Your task to perform on an android device: turn off javascript in the chrome app Image 0: 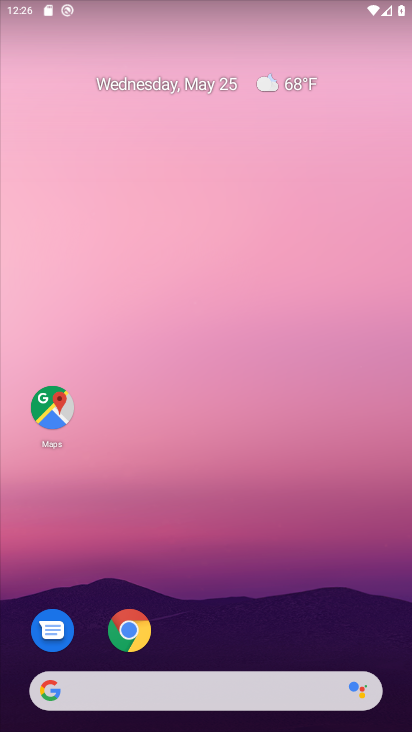
Step 0: click (129, 633)
Your task to perform on an android device: turn off javascript in the chrome app Image 1: 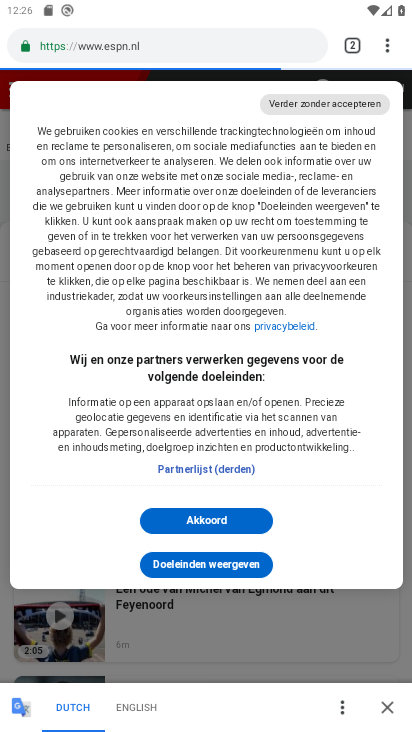
Step 1: drag from (386, 45) to (235, 496)
Your task to perform on an android device: turn off javascript in the chrome app Image 2: 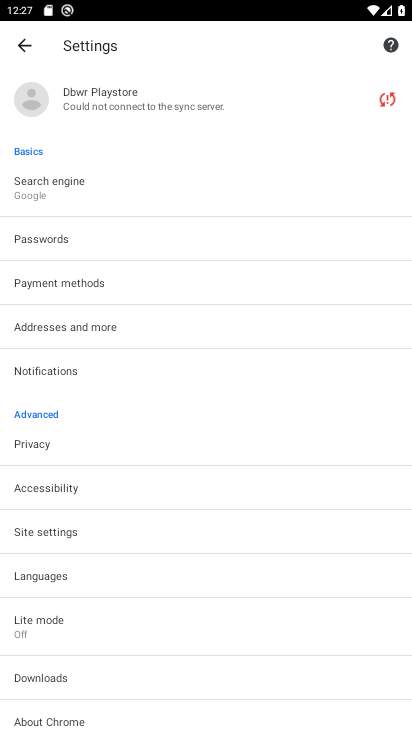
Step 2: click (100, 537)
Your task to perform on an android device: turn off javascript in the chrome app Image 3: 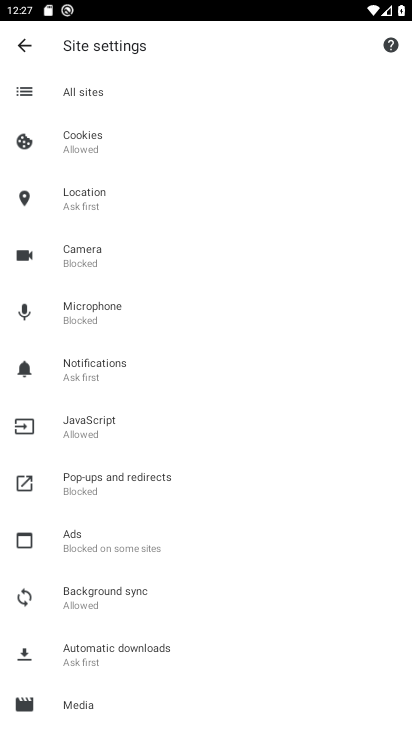
Step 3: click (118, 434)
Your task to perform on an android device: turn off javascript in the chrome app Image 4: 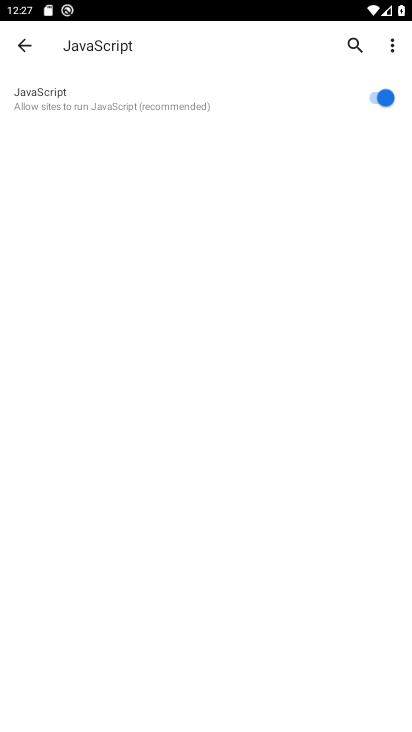
Step 4: click (369, 95)
Your task to perform on an android device: turn off javascript in the chrome app Image 5: 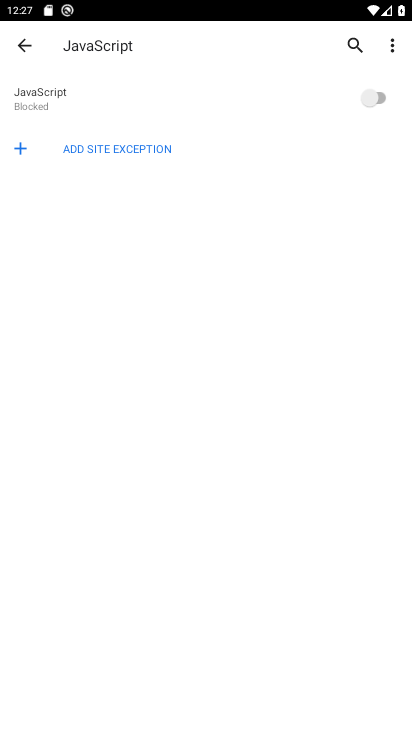
Step 5: task complete